Your task to perform on an android device: Go to Google Image 0: 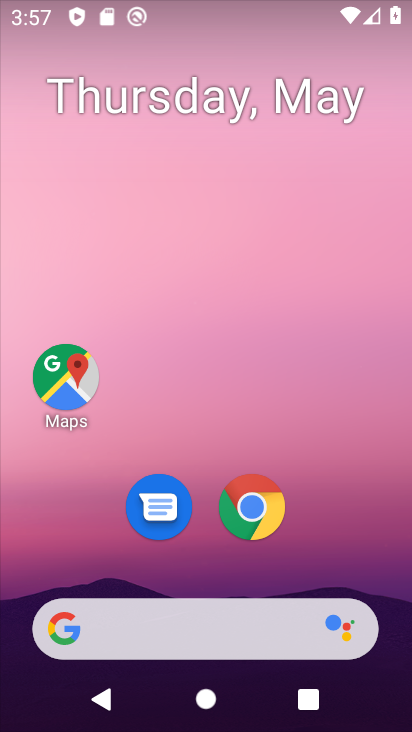
Step 0: drag from (270, 579) to (241, 43)
Your task to perform on an android device: Go to Google Image 1: 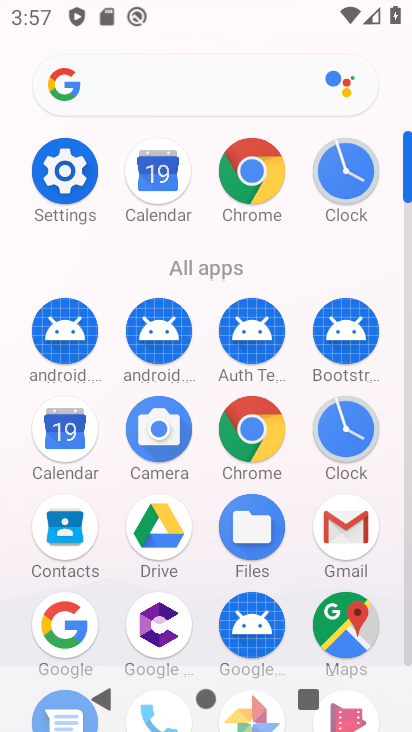
Step 1: click (61, 624)
Your task to perform on an android device: Go to Google Image 2: 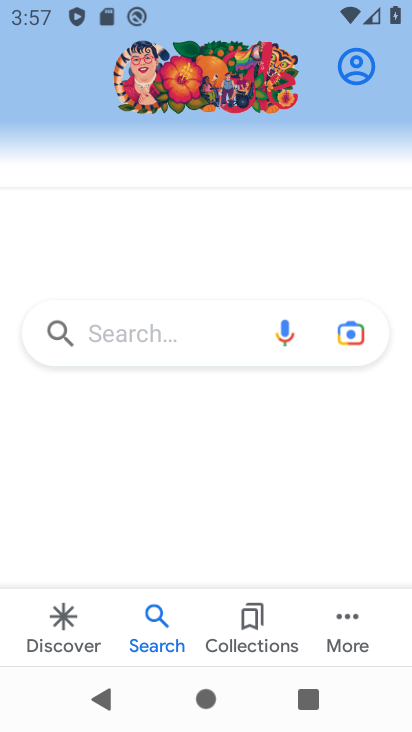
Step 2: task complete